Your task to perform on an android device: toggle translation in the chrome app Image 0: 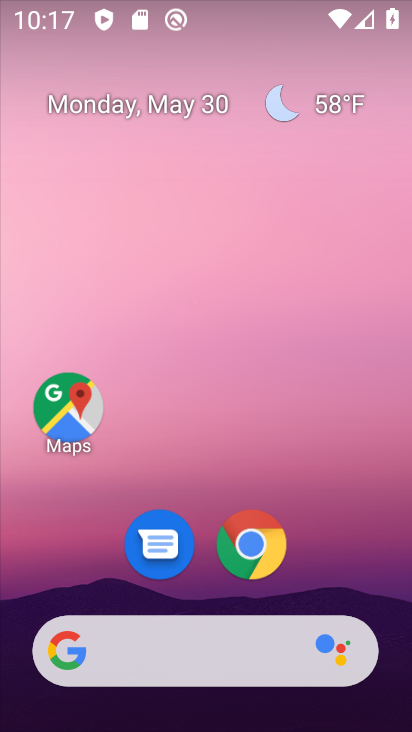
Step 0: click (276, 581)
Your task to perform on an android device: toggle translation in the chrome app Image 1: 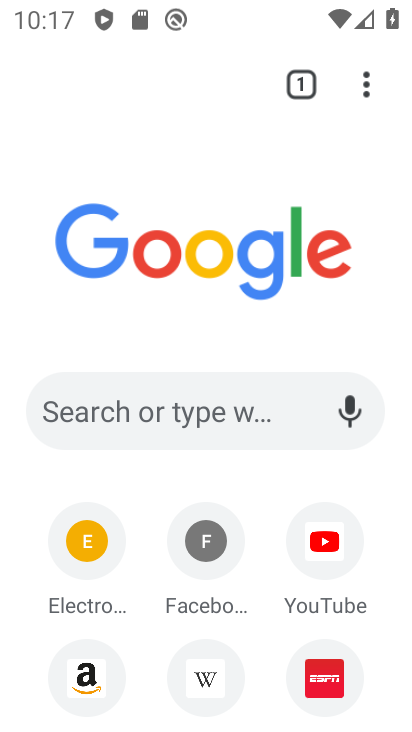
Step 1: click (360, 102)
Your task to perform on an android device: toggle translation in the chrome app Image 2: 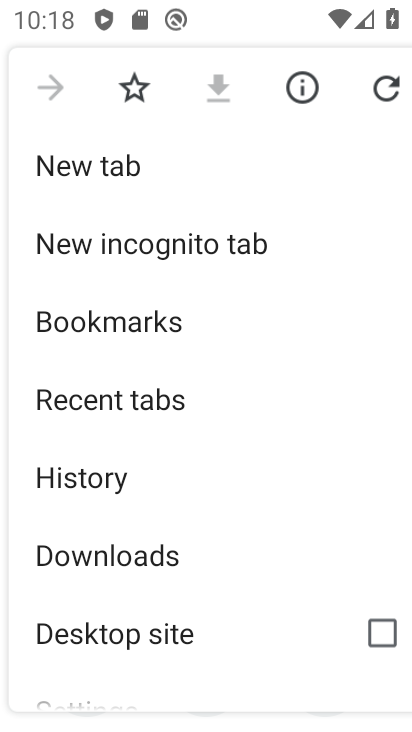
Step 2: drag from (211, 660) to (244, 290)
Your task to perform on an android device: toggle translation in the chrome app Image 3: 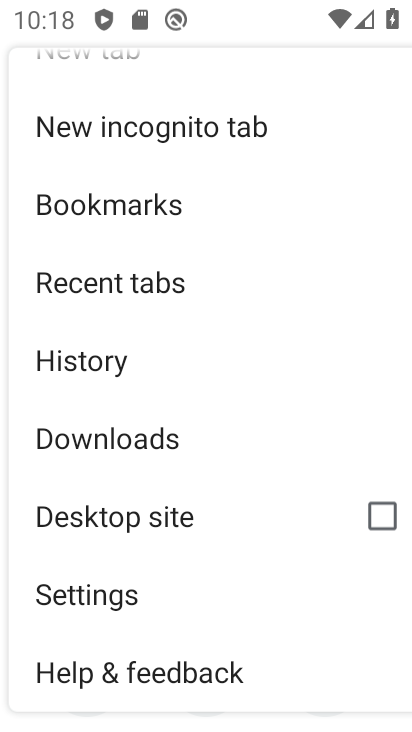
Step 3: click (163, 604)
Your task to perform on an android device: toggle translation in the chrome app Image 4: 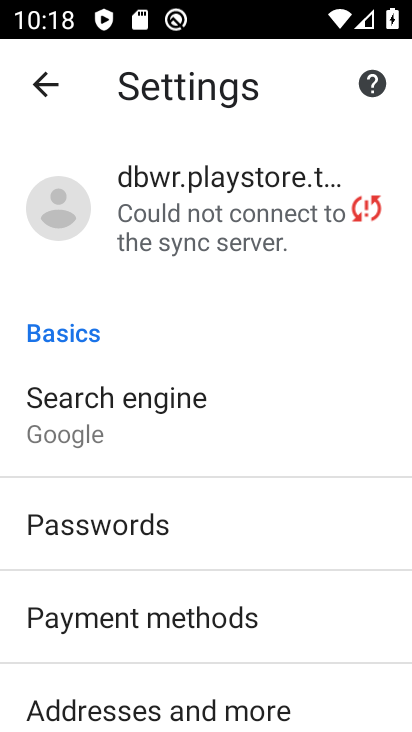
Step 4: drag from (184, 610) to (314, 154)
Your task to perform on an android device: toggle translation in the chrome app Image 5: 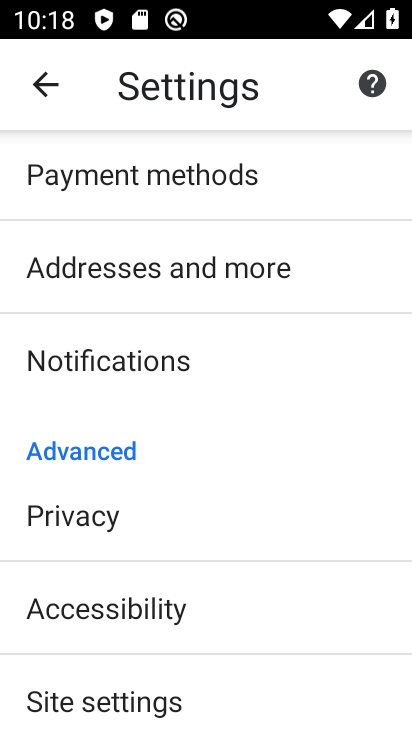
Step 5: drag from (172, 675) to (244, 155)
Your task to perform on an android device: toggle translation in the chrome app Image 6: 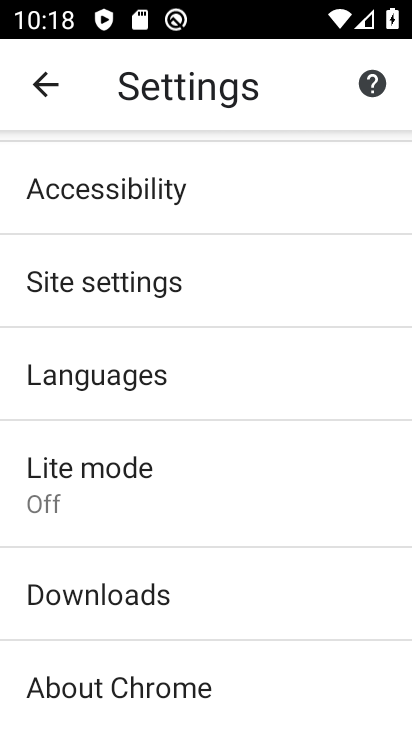
Step 6: click (231, 386)
Your task to perform on an android device: toggle translation in the chrome app Image 7: 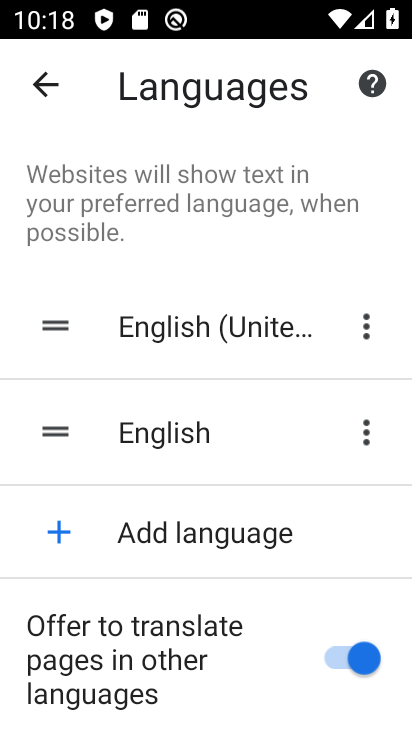
Step 7: click (366, 660)
Your task to perform on an android device: toggle translation in the chrome app Image 8: 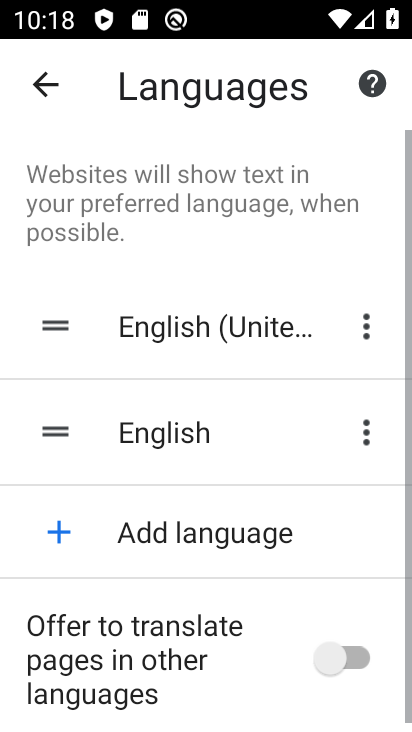
Step 8: task complete